Your task to perform on an android device: add a label to a message in the gmail app Image 0: 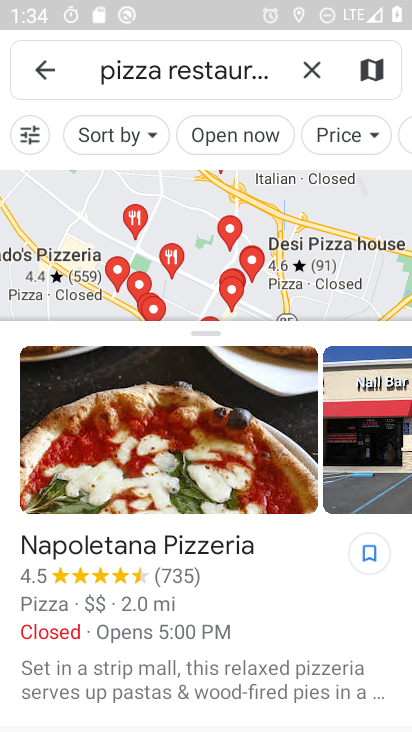
Step 0: press home button
Your task to perform on an android device: add a label to a message in the gmail app Image 1: 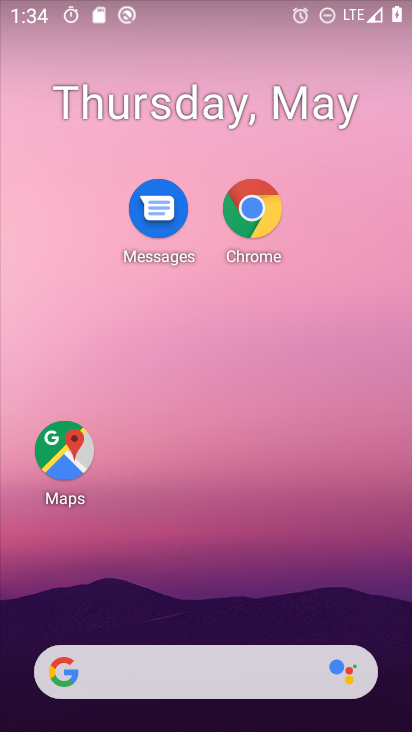
Step 1: drag from (234, 593) to (178, 0)
Your task to perform on an android device: add a label to a message in the gmail app Image 2: 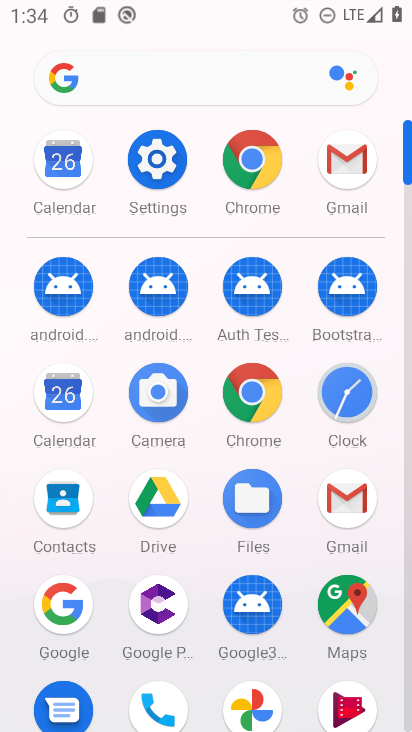
Step 2: click (352, 181)
Your task to perform on an android device: add a label to a message in the gmail app Image 3: 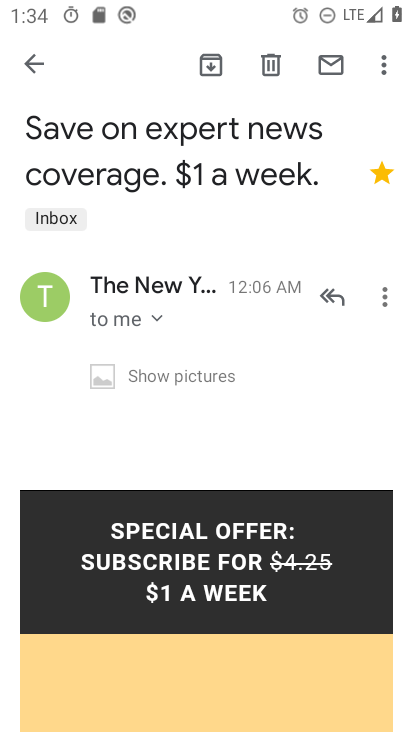
Step 3: click (376, 70)
Your task to perform on an android device: add a label to a message in the gmail app Image 4: 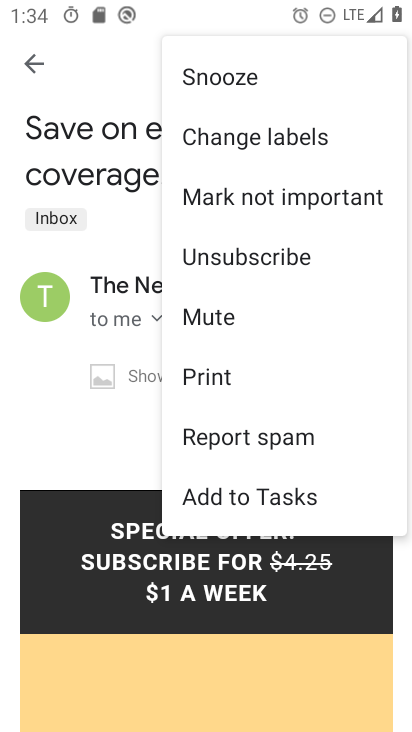
Step 4: click (234, 133)
Your task to perform on an android device: add a label to a message in the gmail app Image 5: 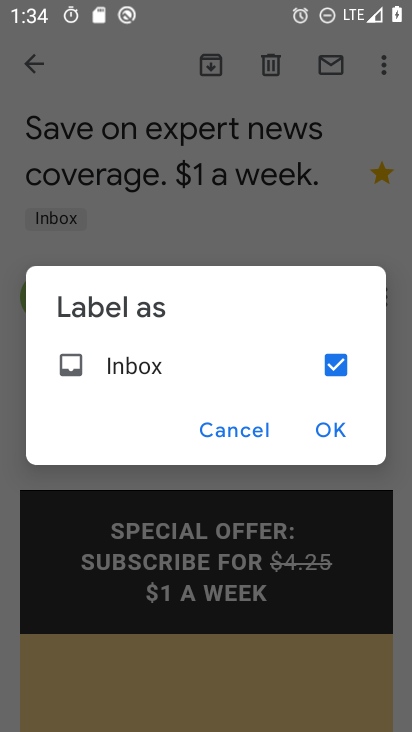
Step 5: click (337, 357)
Your task to perform on an android device: add a label to a message in the gmail app Image 6: 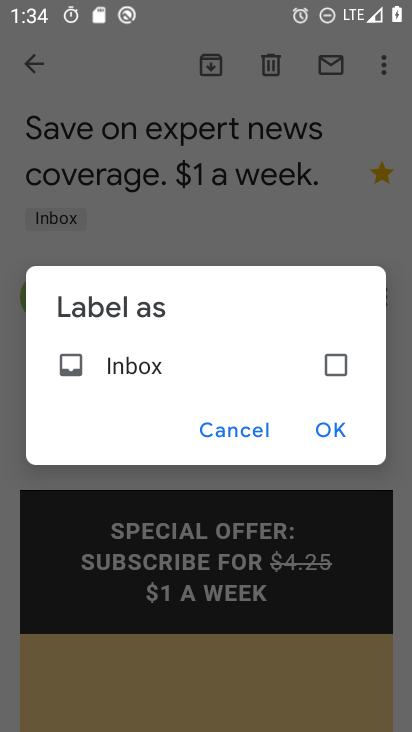
Step 6: click (323, 435)
Your task to perform on an android device: add a label to a message in the gmail app Image 7: 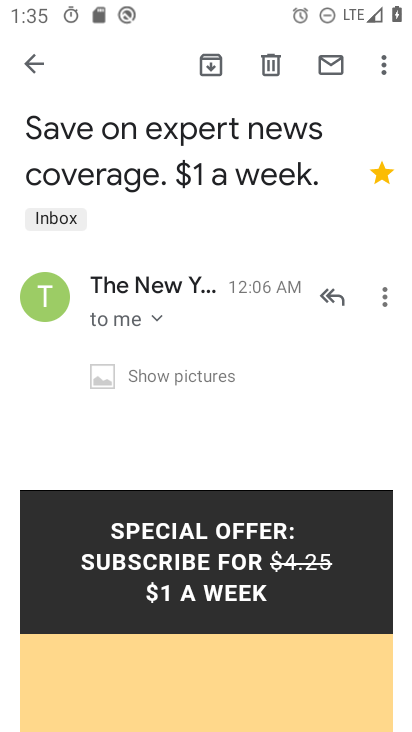
Step 7: task complete